Your task to perform on an android device: Open privacy settings Image 0: 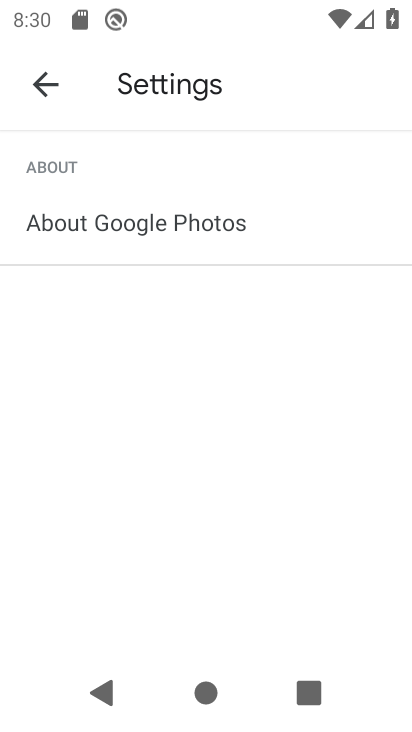
Step 0: press home button
Your task to perform on an android device: Open privacy settings Image 1: 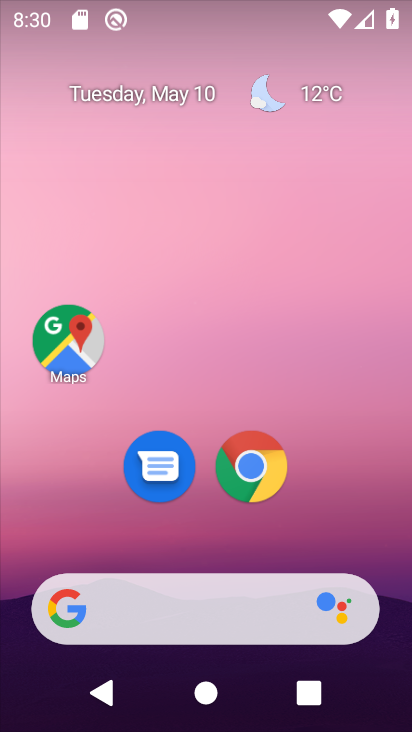
Step 1: drag from (173, 568) to (235, 4)
Your task to perform on an android device: Open privacy settings Image 2: 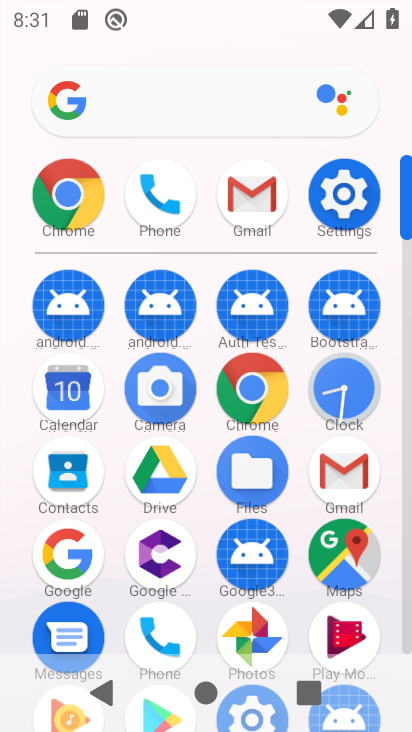
Step 2: click (339, 210)
Your task to perform on an android device: Open privacy settings Image 3: 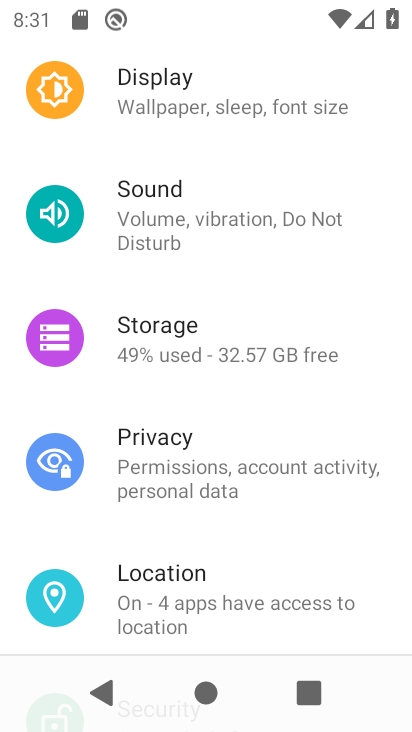
Step 3: click (176, 480)
Your task to perform on an android device: Open privacy settings Image 4: 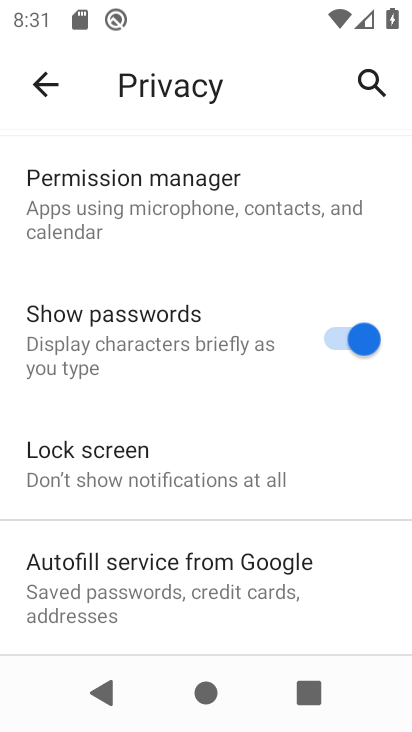
Step 4: drag from (165, 538) to (193, 176)
Your task to perform on an android device: Open privacy settings Image 5: 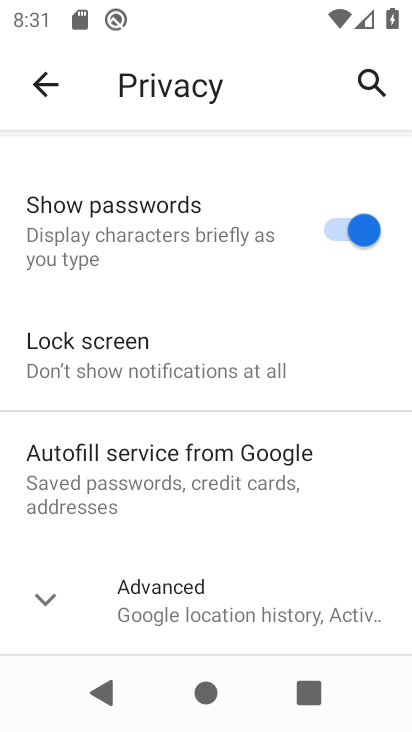
Step 5: click (148, 600)
Your task to perform on an android device: Open privacy settings Image 6: 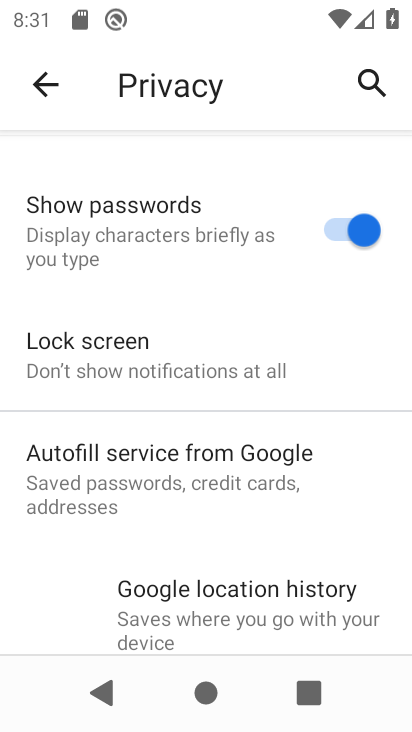
Step 6: task complete